Your task to perform on an android device: check android version Image 0: 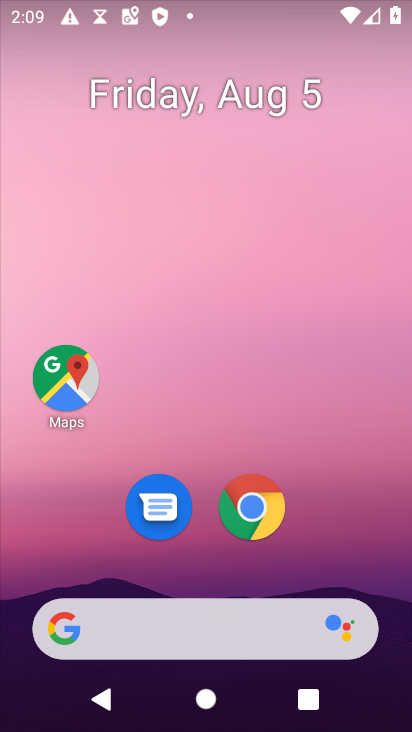
Step 0: drag from (336, 555) to (270, 5)
Your task to perform on an android device: check android version Image 1: 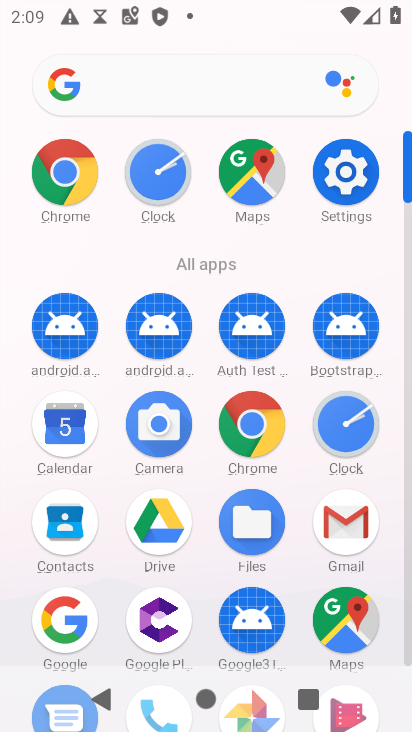
Step 1: click (339, 169)
Your task to perform on an android device: check android version Image 2: 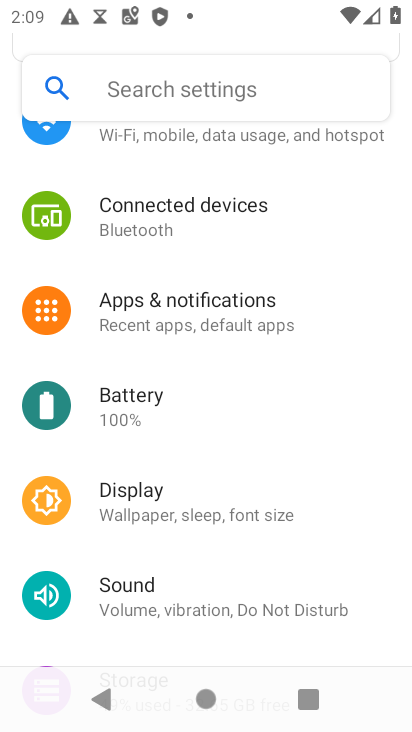
Step 2: drag from (158, 637) to (126, 317)
Your task to perform on an android device: check android version Image 3: 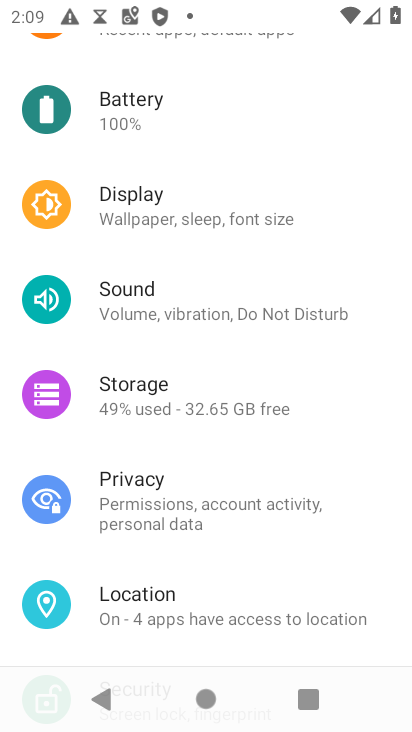
Step 3: drag from (199, 619) to (210, 240)
Your task to perform on an android device: check android version Image 4: 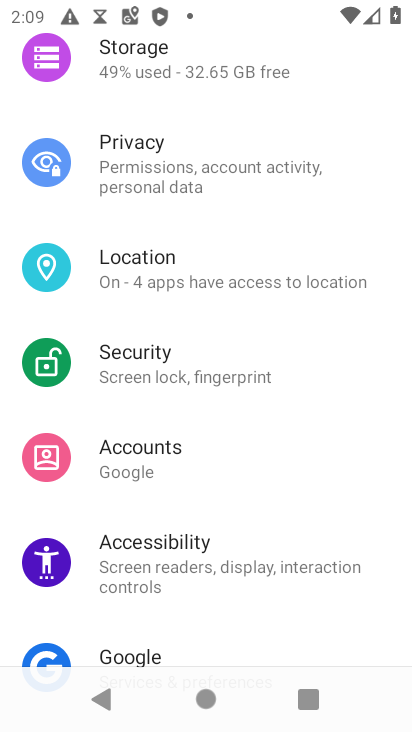
Step 4: drag from (182, 596) to (163, 259)
Your task to perform on an android device: check android version Image 5: 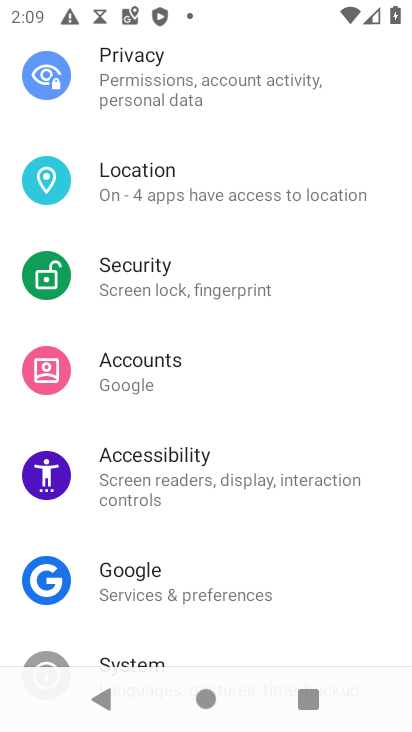
Step 5: drag from (126, 544) to (111, 244)
Your task to perform on an android device: check android version Image 6: 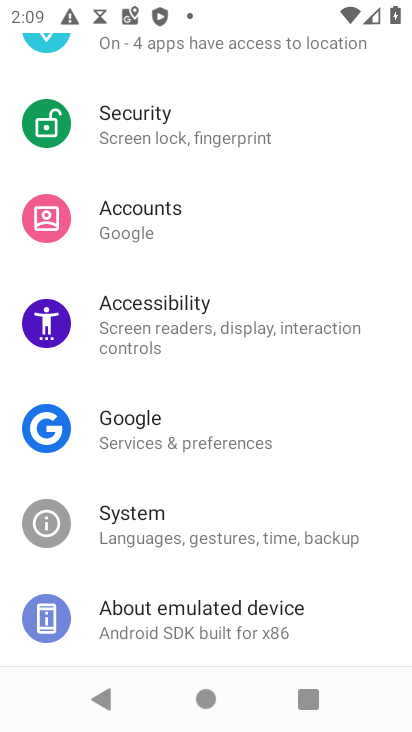
Step 6: click (161, 616)
Your task to perform on an android device: check android version Image 7: 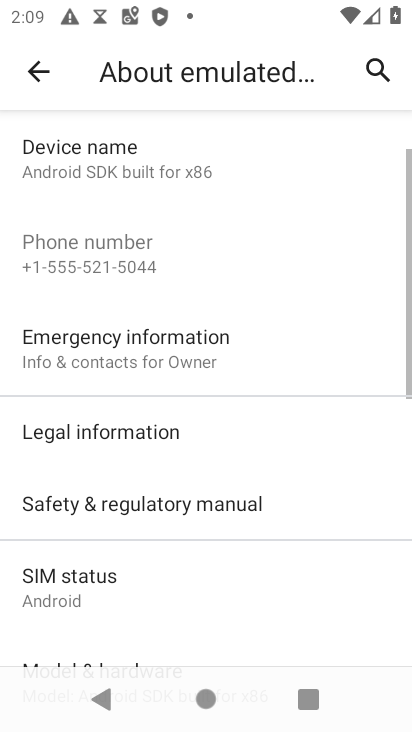
Step 7: drag from (110, 597) to (114, 277)
Your task to perform on an android device: check android version Image 8: 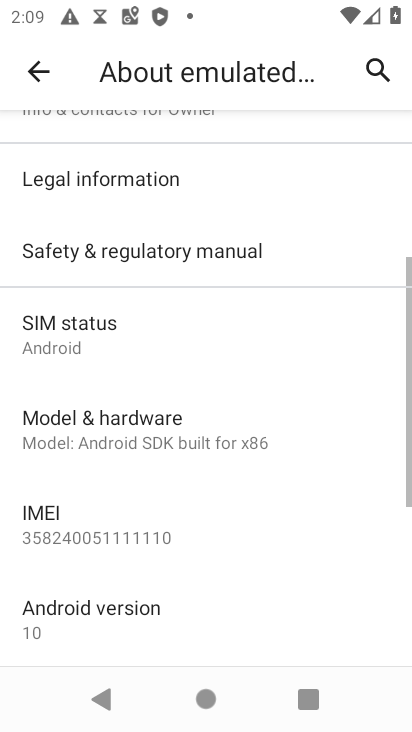
Step 8: click (117, 613)
Your task to perform on an android device: check android version Image 9: 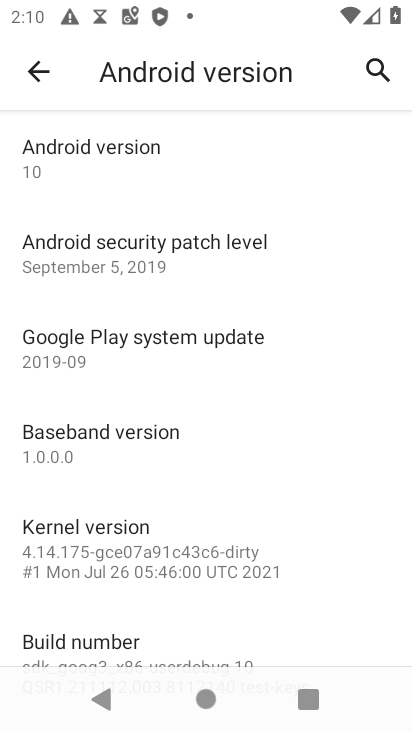
Step 9: click (202, 150)
Your task to perform on an android device: check android version Image 10: 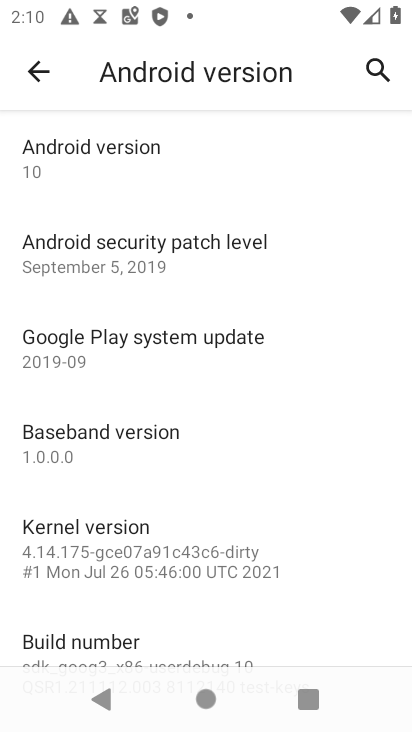
Step 10: task complete